Your task to perform on an android device: turn off airplane mode Image 0: 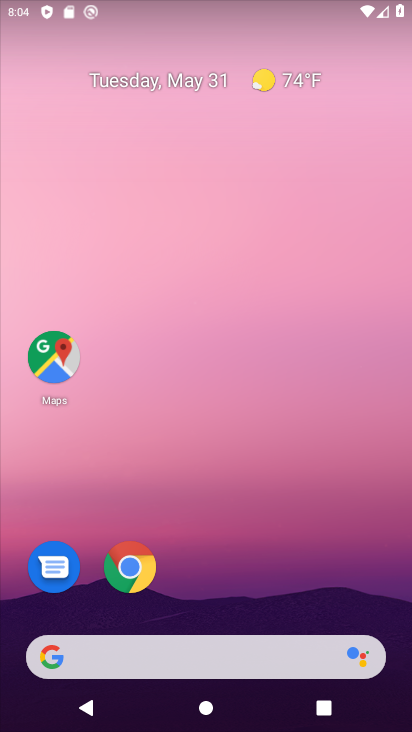
Step 0: drag from (269, 689) to (270, 185)
Your task to perform on an android device: turn off airplane mode Image 1: 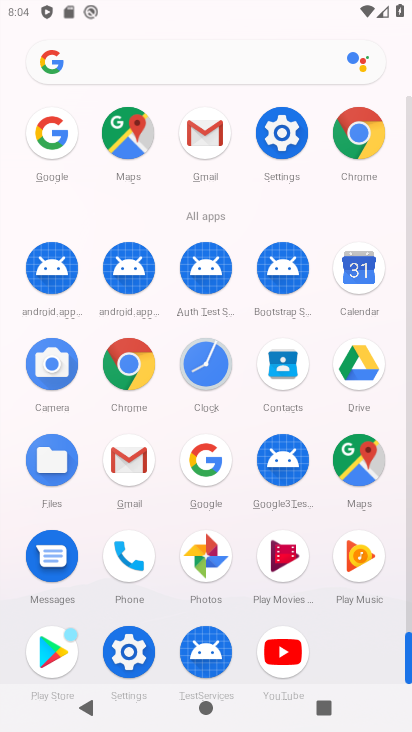
Step 1: click (276, 131)
Your task to perform on an android device: turn off airplane mode Image 2: 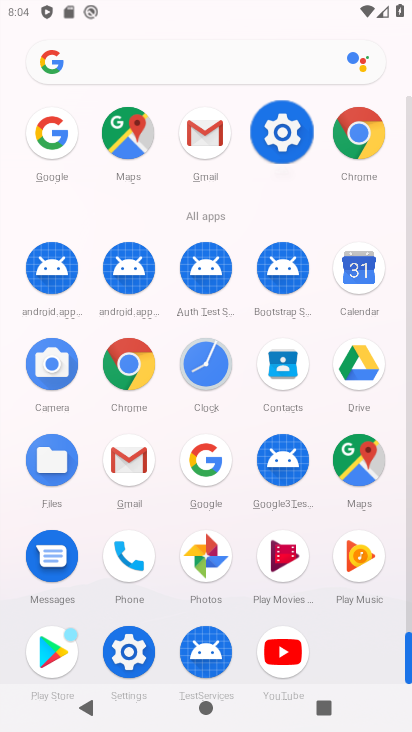
Step 2: click (283, 135)
Your task to perform on an android device: turn off airplane mode Image 3: 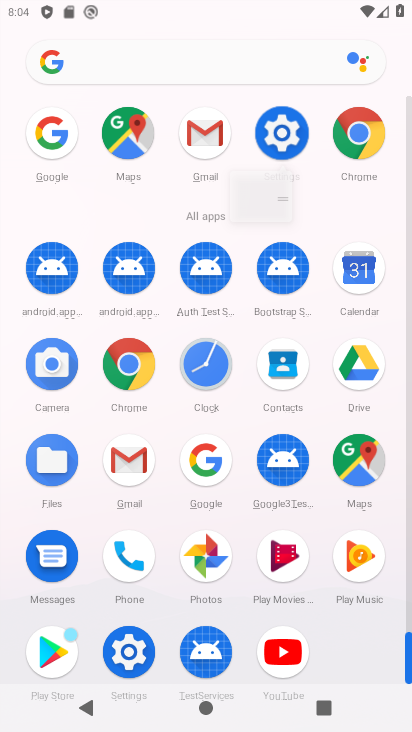
Step 3: click (281, 135)
Your task to perform on an android device: turn off airplane mode Image 4: 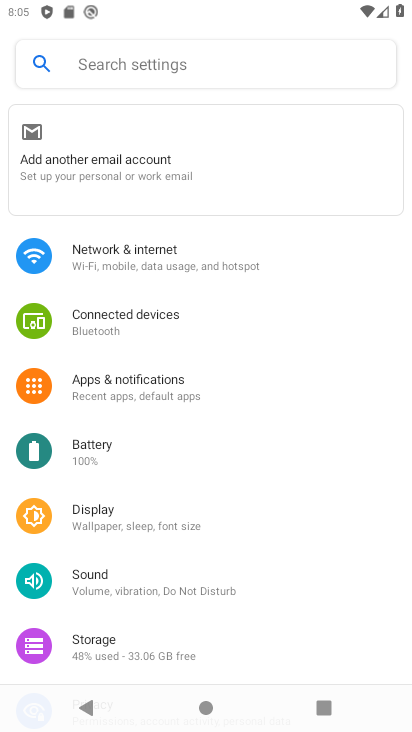
Step 4: click (140, 388)
Your task to perform on an android device: turn off airplane mode Image 5: 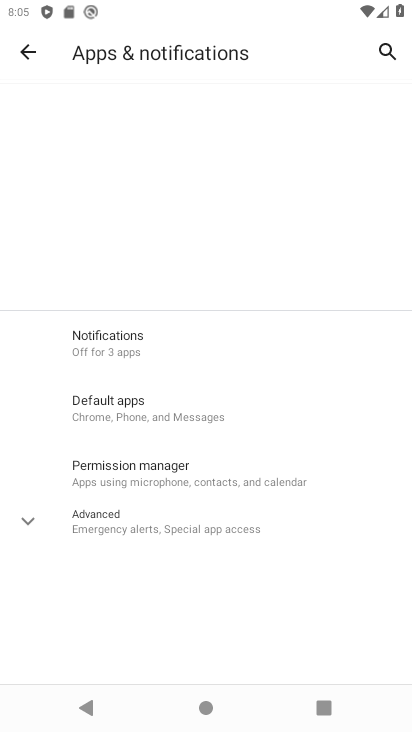
Step 5: click (138, 388)
Your task to perform on an android device: turn off airplane mode Image 6: 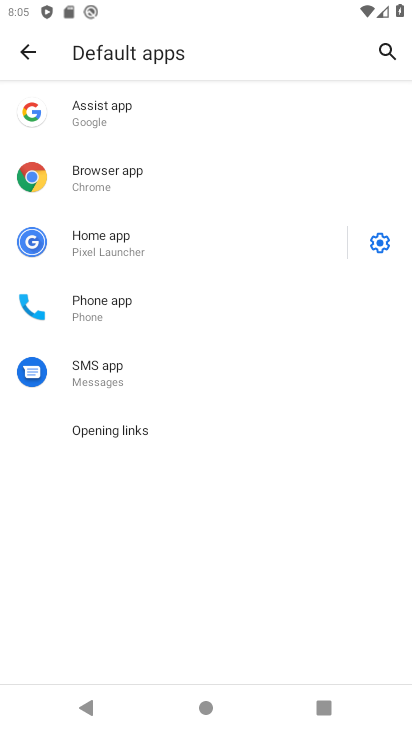
Step 6: click (24, 54)
Your task to perform on an android device: turn off airplane mode Image 7: 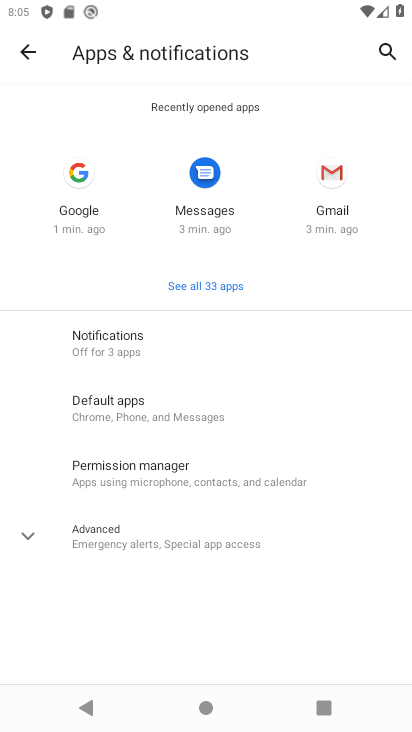
Step 7: click (112, 387)
Your task to perform on an android device: turn off airplane mode Image 8: 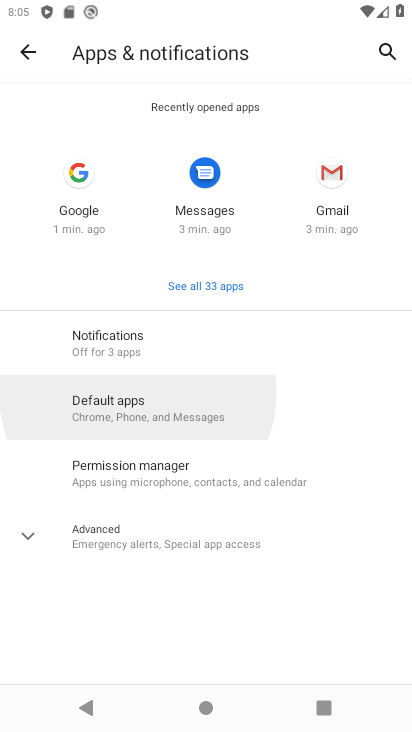
Step 8: click (111, 390)
Your task to perform on an android device: turn off airplane mode Image 9: 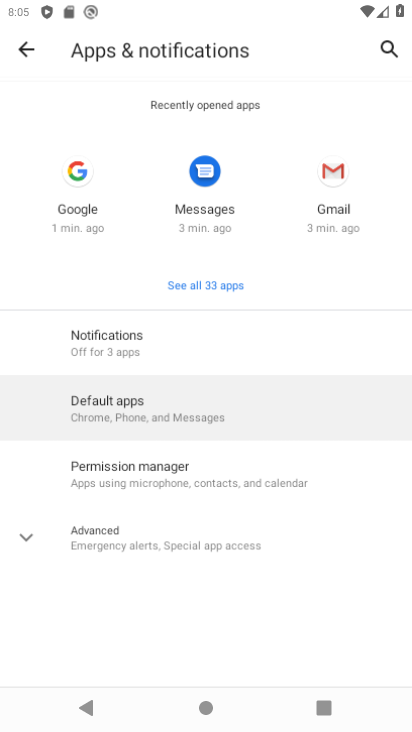
Step 9: click (111, 390)
Your task to perform on an android device: turn off airplane mode Image 10: 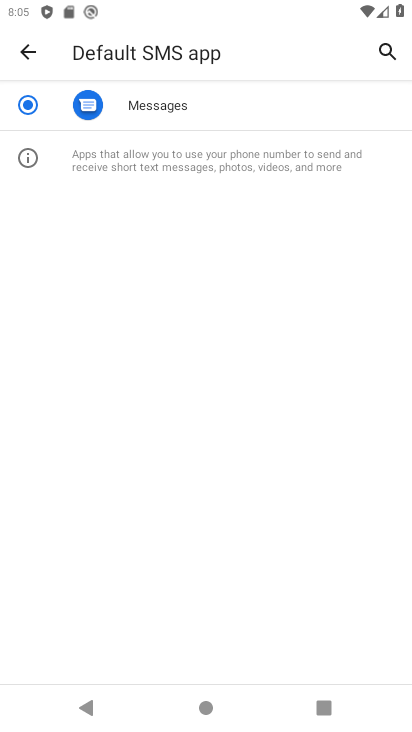
Step 10: click (27, 49)
Your task to perform on an android device: turn off airplane mode Image 11: 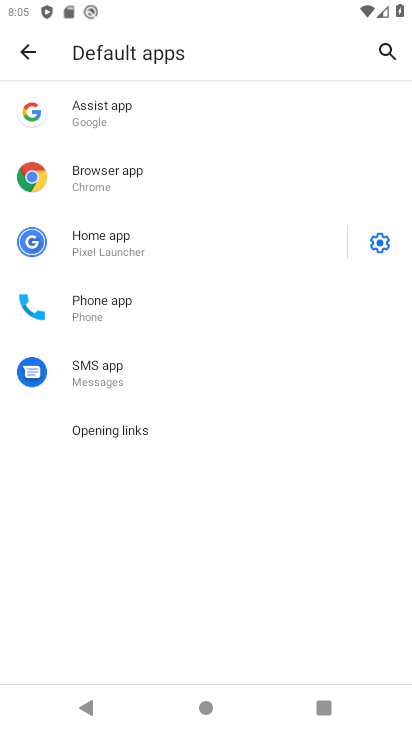
Step 11: click (30, 49)
Your task to perform on an android device: turn off airplane mode Image 12: 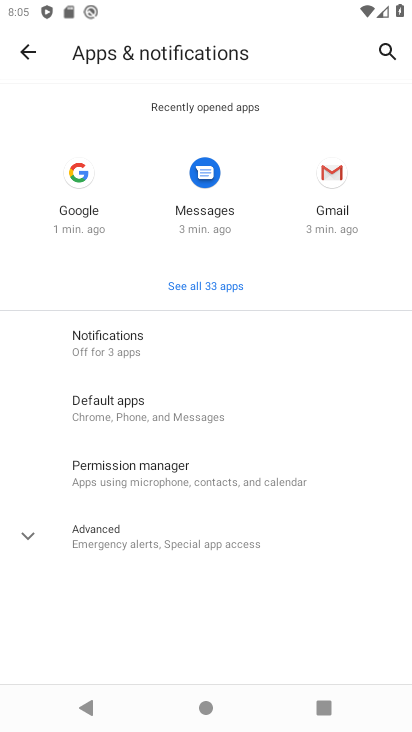
Step 12: click (110, 332)
Your task to perform on an android device: turn off airplane mode Image 13: 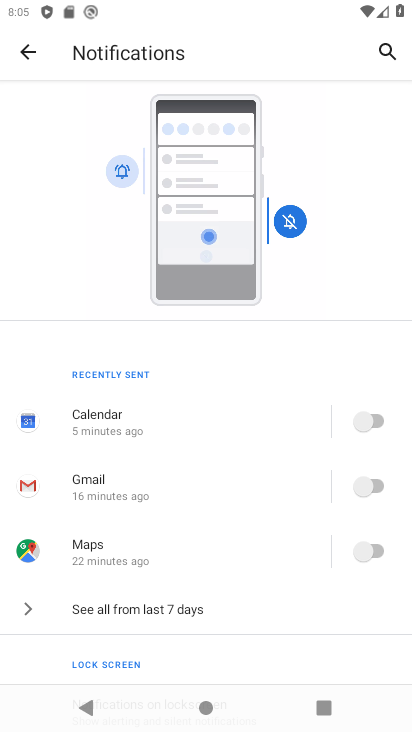
Step 13: drag from (108, 235) to (101, 106)
Your task to perform on an android device: turn off airplane mode Image 14: 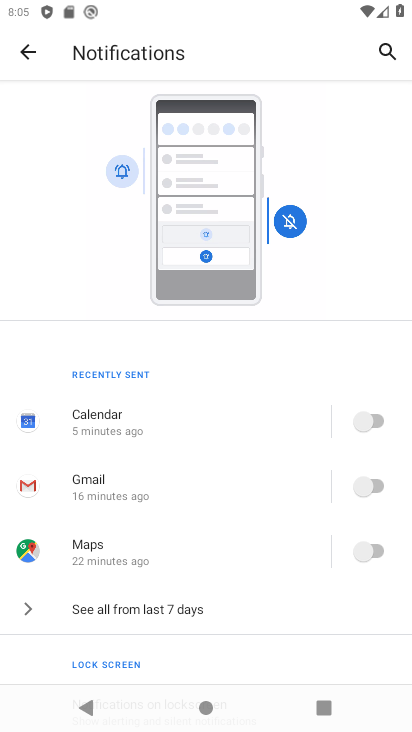
Step 14: drag from (84, 526) to (89, 204)
Your task to perform on an android device: turn off airplane mode Image 15: 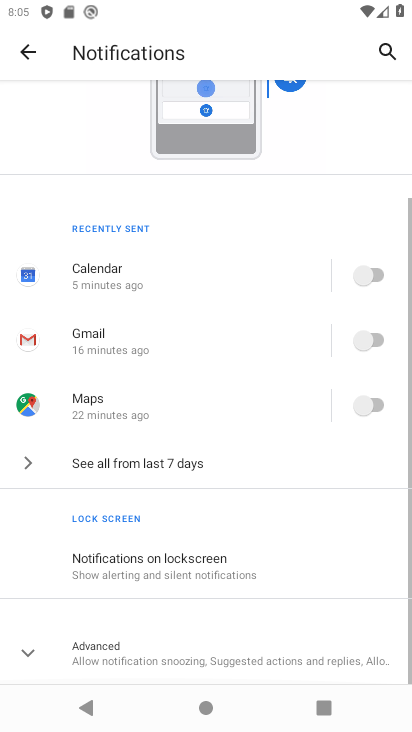
Step 15: drag from (214, 484) to (207, 207)
Your task to perform on an android device: turn off airplane mode Image 16: 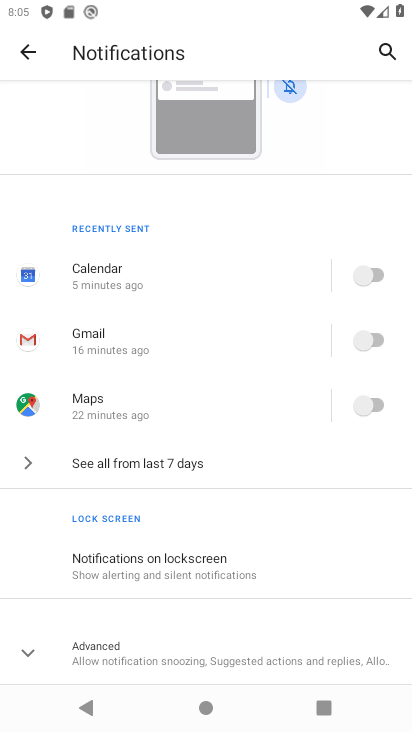
Step 16: click (22, 53)
Your task to perform on an android device: turn off airplane mode Image 17: 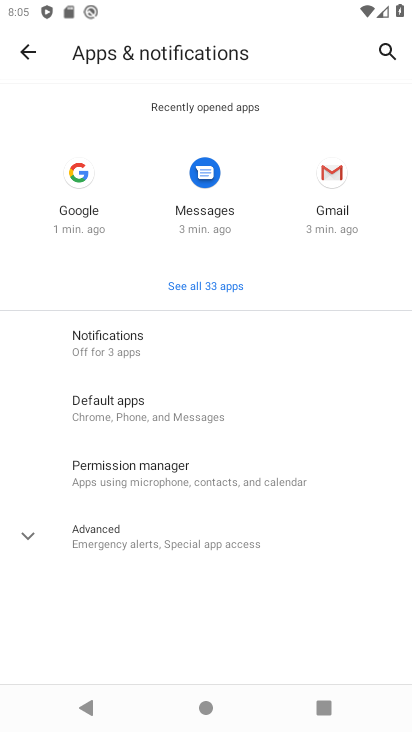
Step 17: click (22, 49)
Your task to perform on an android device: turn off airplane mode Image 18: 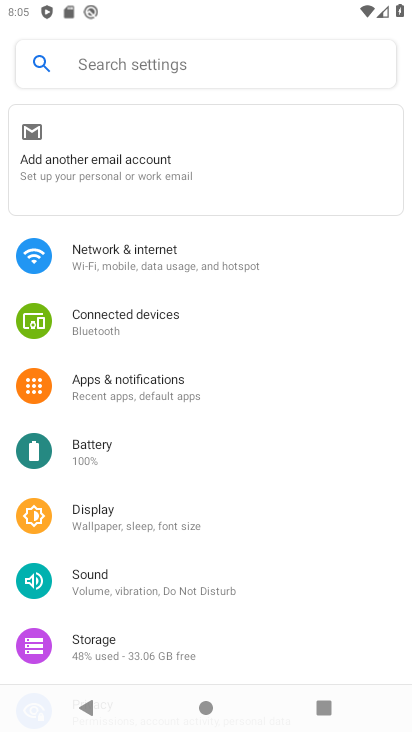
Step 18: click (146, 258)
Your task to perform on an android device: turn off airplane mode Image 19: 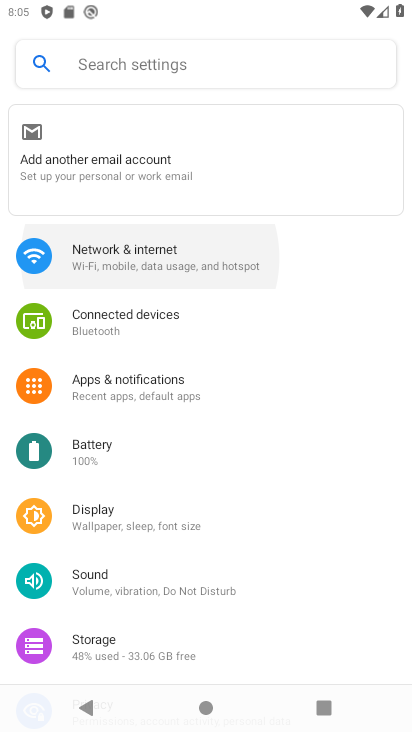
Step 19: click (149, 249)
Your task to perform on an android device: turn off airplane mode Image 20: 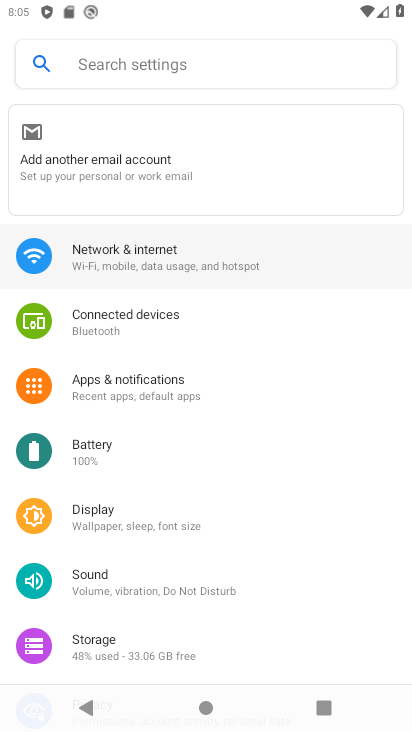
Step 20: click (150, 256)
Your task to perform on an android device: turn off airplane mode Image 21: 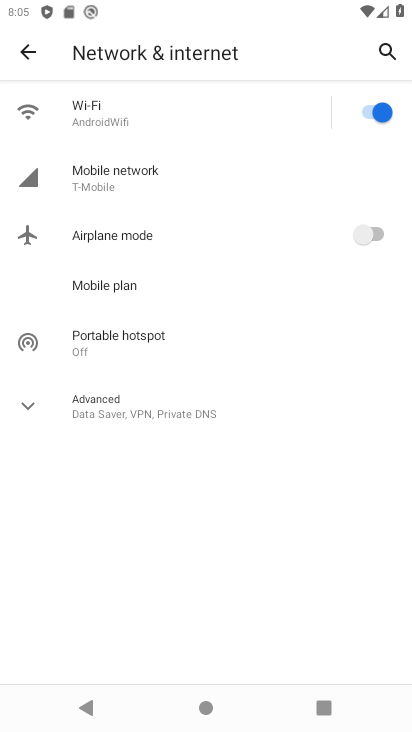
Step 21: task complete